Your task to perform on an android device: open chrome privacy settings Image 0: 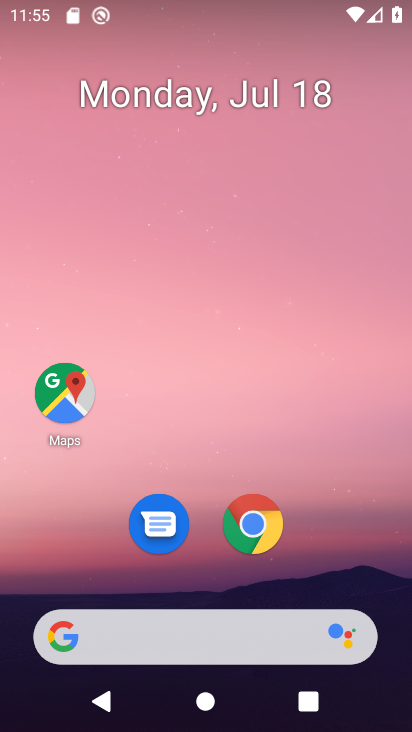
Step 0: click (256, 526)
Your task to perform on an android device: open chrome privacy settings Image 1: 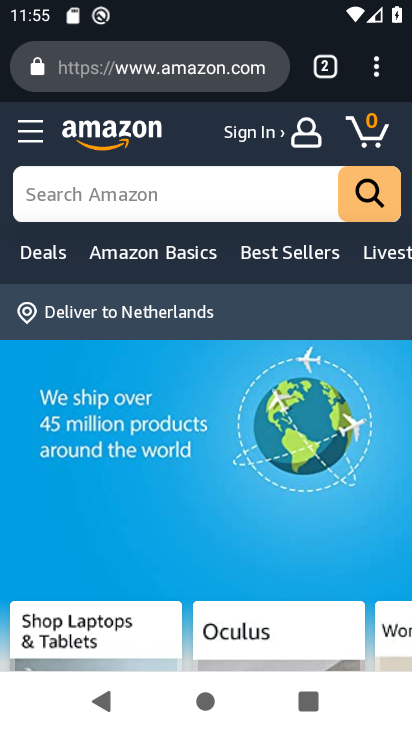
Step 1: click (376, 65)
Your task to perform on an android device: open chrome privacy settings Image 2: 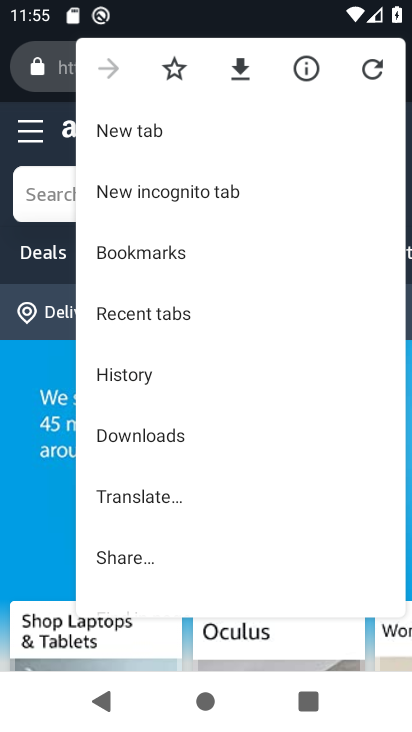
Step 2: drag from (235, 476) to (275, 95)
Your task to perform on an android device: open chrome privacy settings Image 3: 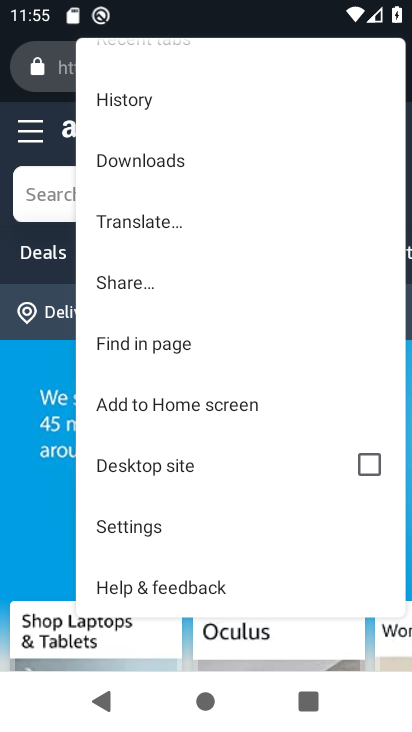
Step 3: drag from (248, 407) to (271, 199)
Your task to perform on an android device: open chrome privacy settings Image 4: 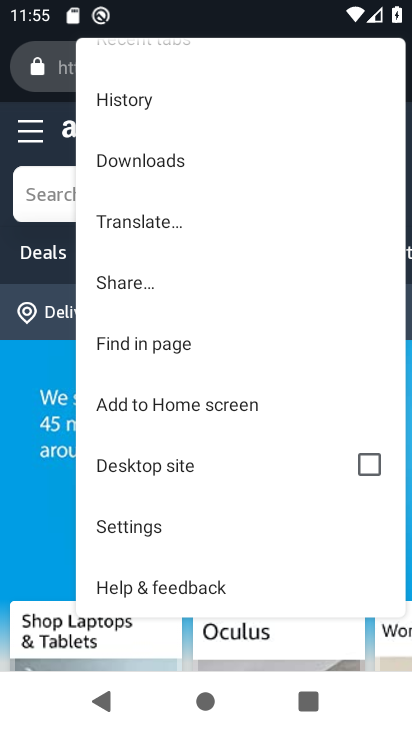
Step 4: click (172, 522)
Your task to perform on an android device: open chrome privacy settings Image 5: 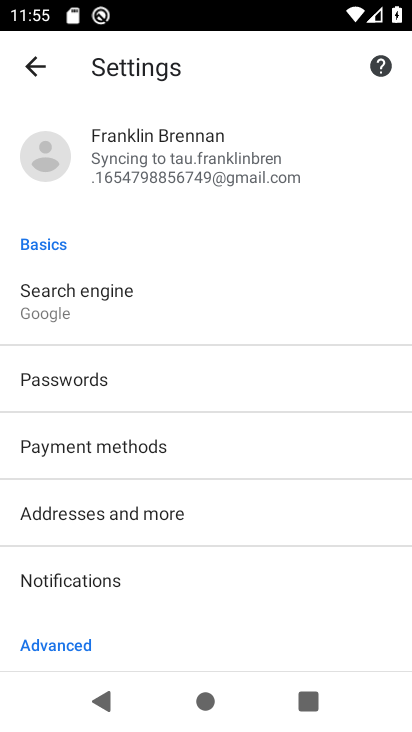
Step 5: drag from (289, 432) to (309, 194)
Your task to perform on an android device: open chrome privacy settings Image 6: 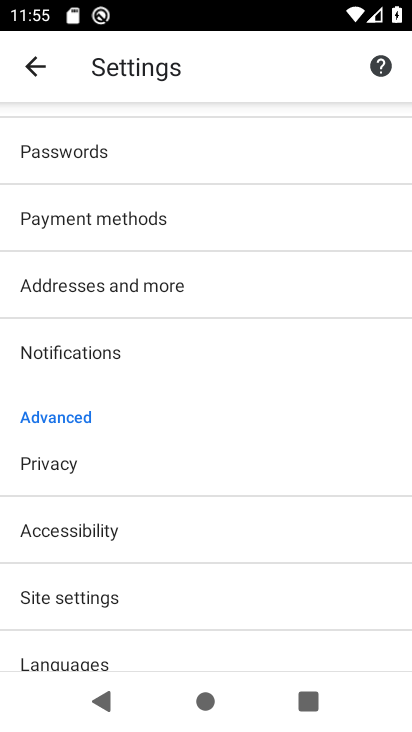
Step 6: click (86, 469)
Your task to perform on an android device: open chrome privacy settings Image 7: 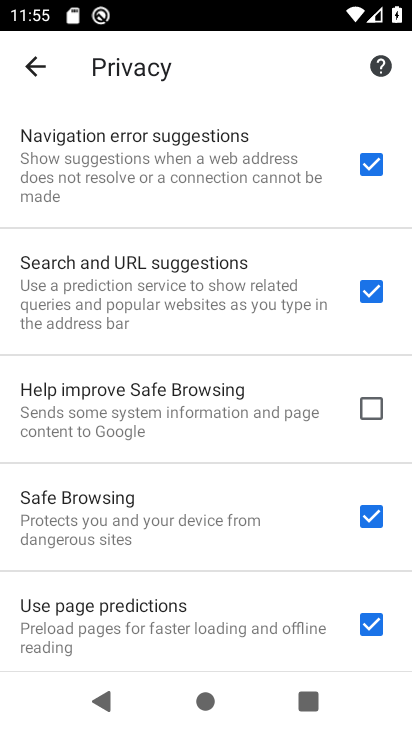
Step 7: task complete